Your task to perform on an android device: star an email in the gmail app Image 0: 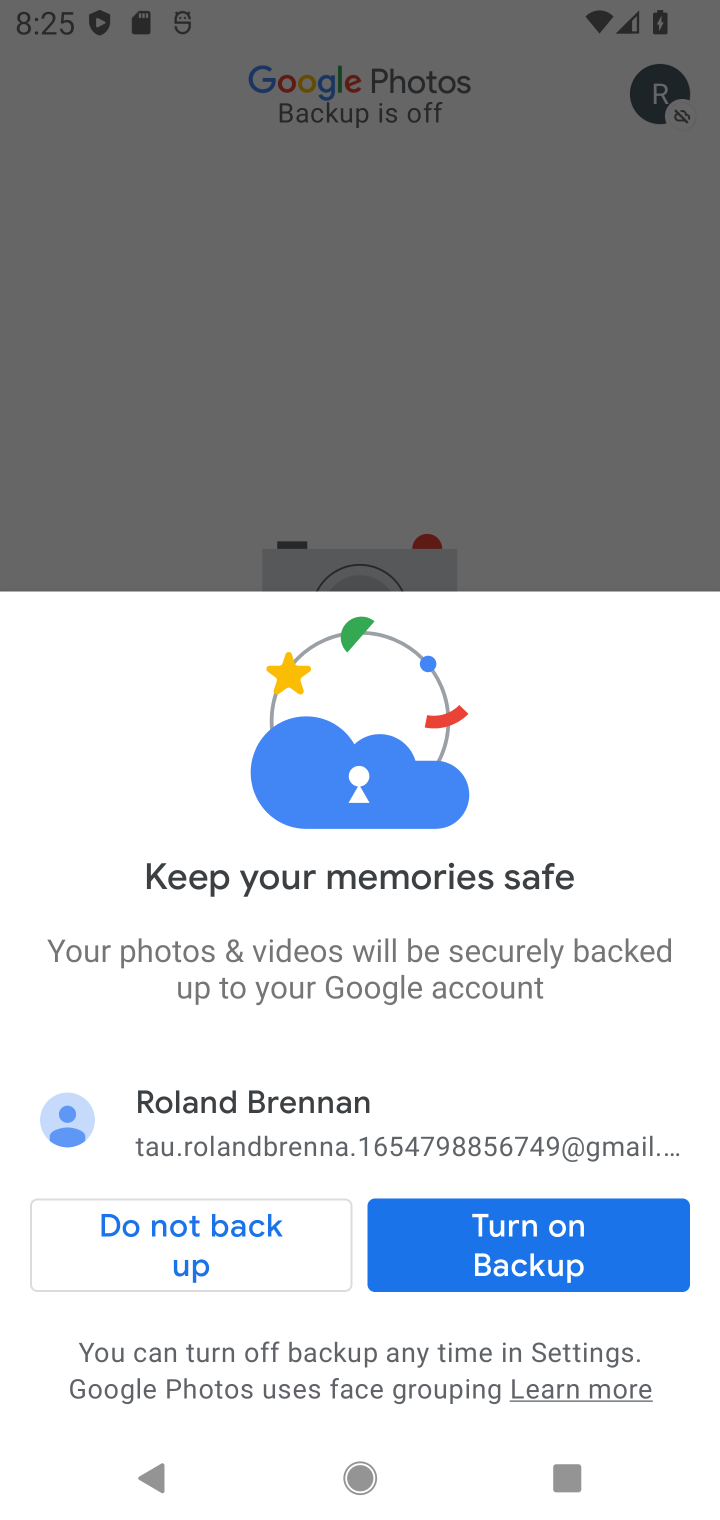
Step 0: press home button
Your task to perform on an android device: star an email in the gmail app Image 1: 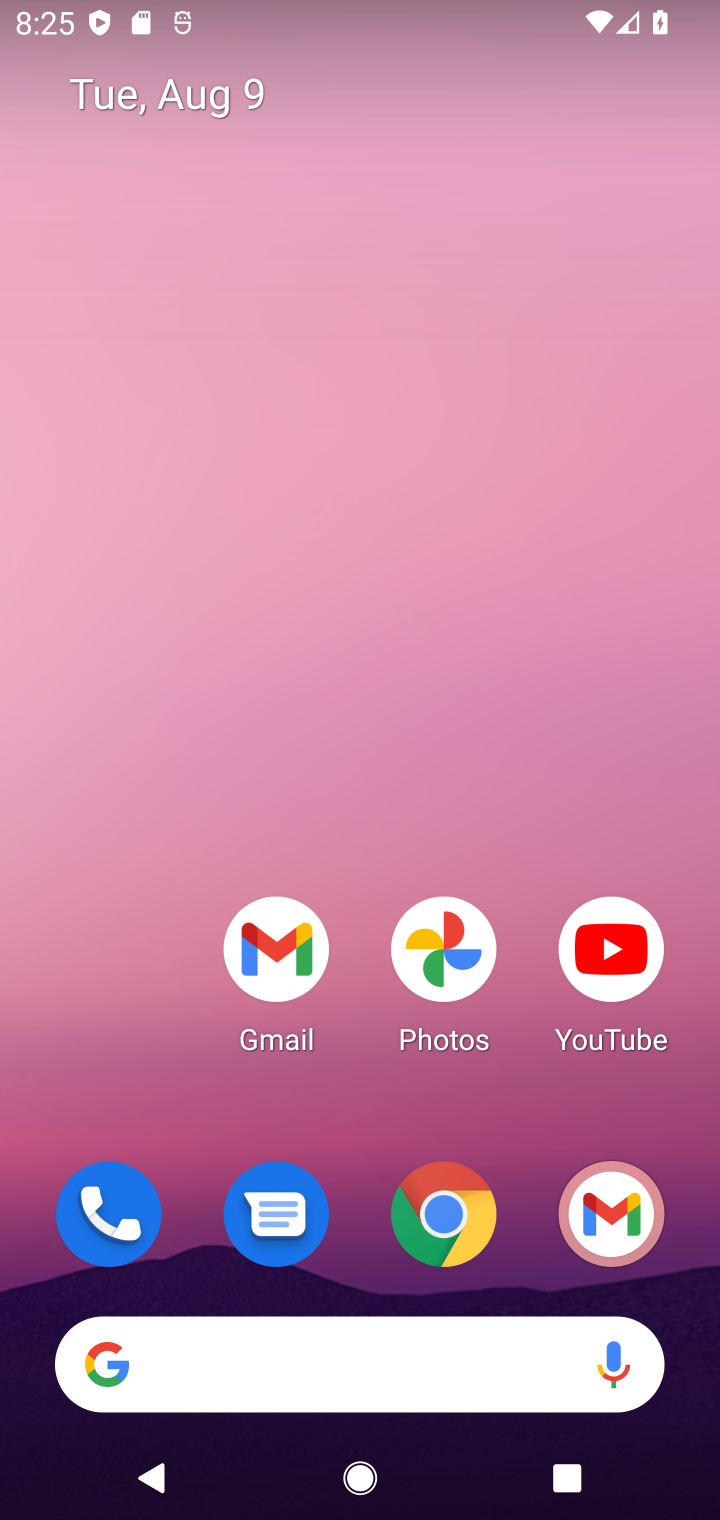
Step 1: click (265, 995)
Your task to perform on an android device: star an email in the gmail app Image 2: 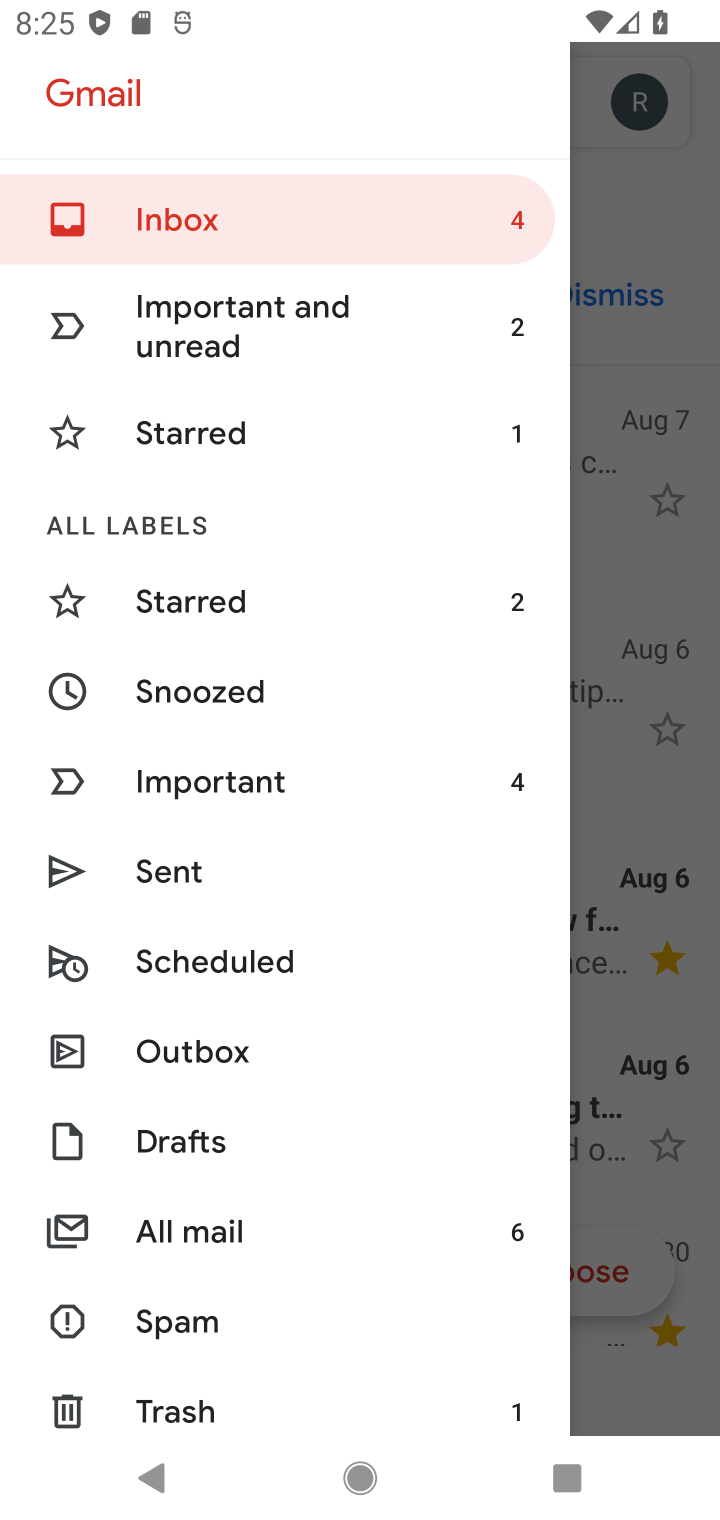
Step 2: click (262, 580)
Your task to perform on an android device: star an email in the gmail app Image 3: 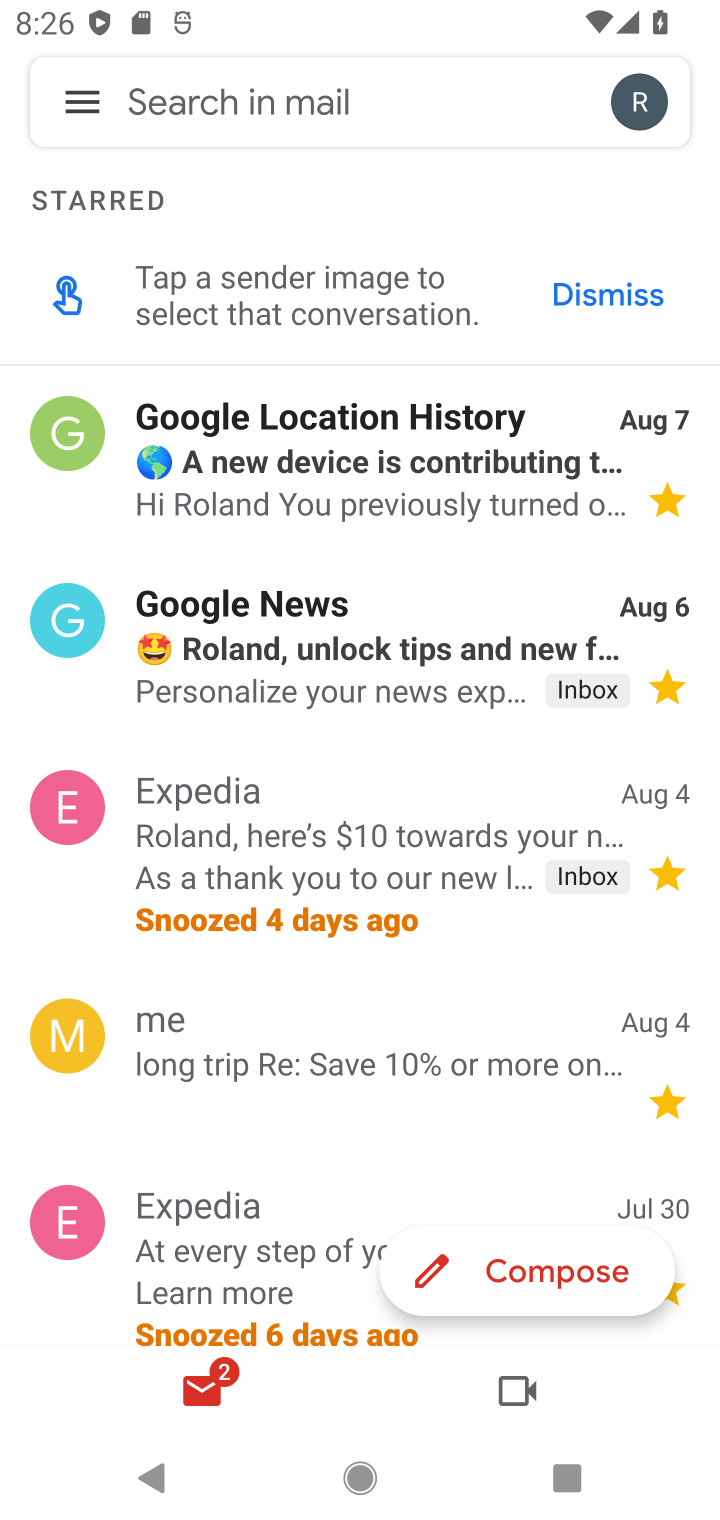
Step 3: task complete